Your task to perform on an android device: open sync settings in chrome Image 0: 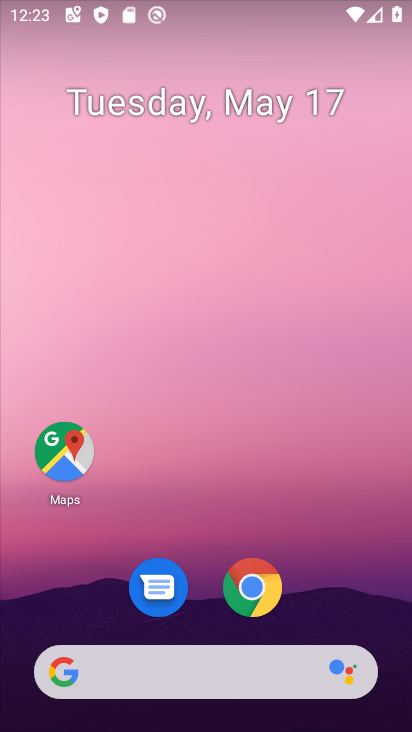
Step 0: click (239, 606)
Your task to perform on an android device: open sync settings in chrome Image 1: 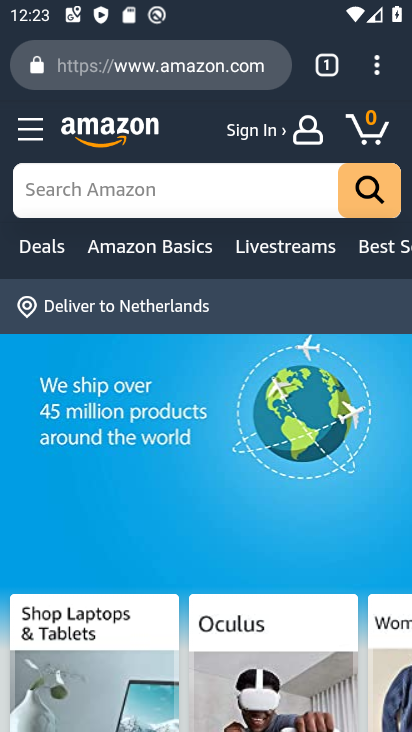
Step 1: click (375, 69)
Your task to perform on an android device: open sync settings in chrome Image 2: 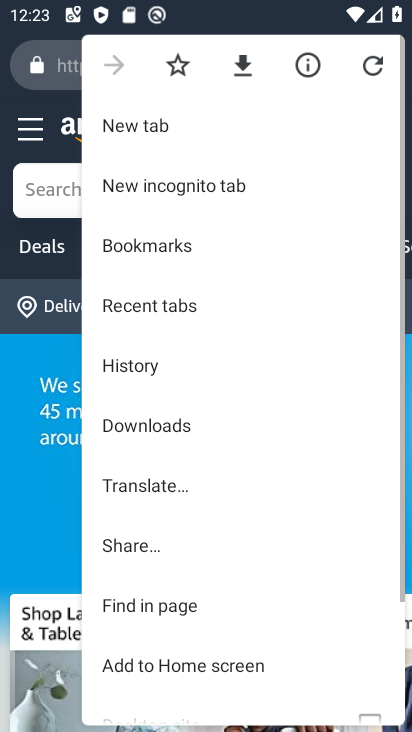
Step 2: drag from (166, 681) to (135, 104)
Your task to perform on an android device: open sync settings in chrome Image 3: 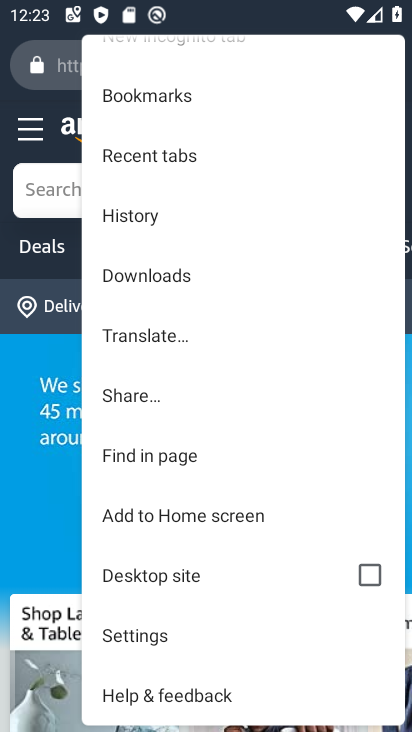
Step 3: click (137, 638)
Your task to perform on an android device: open sync settings in chrome Image 4: 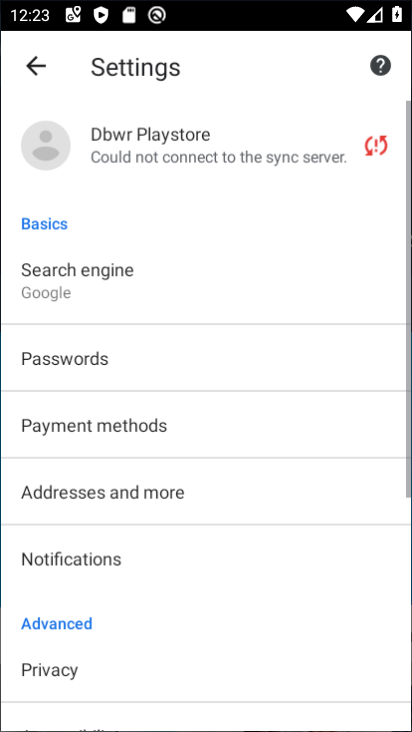
Step 4: drag from (138, 639) to (150, 107)
Your task to perform on an android device: open sync settings in chrome Image 5: 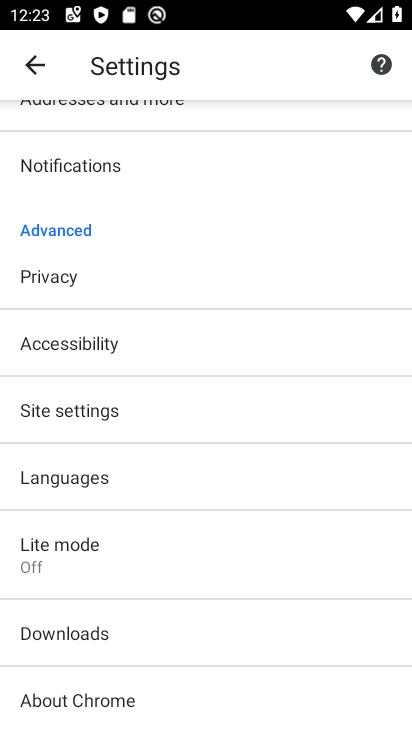
Step 5: drag from (79, 228) to (78, 731)
Your task to perform on an android device: open sync settings in chrome Image 6: 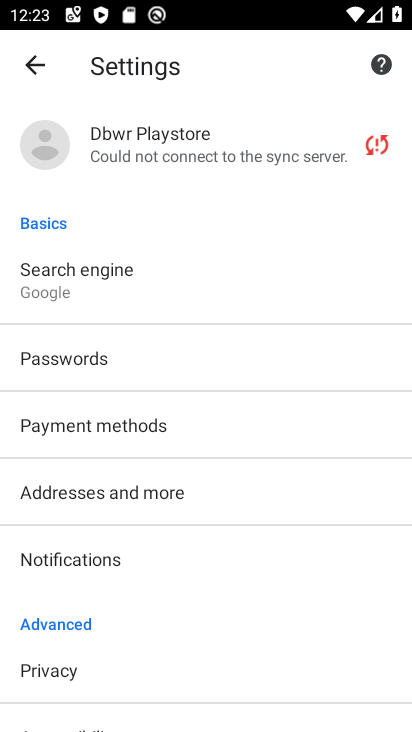
Step 6: click (154, 141)
Your task to perform on an android device: open sync settings in chrome Image 7: 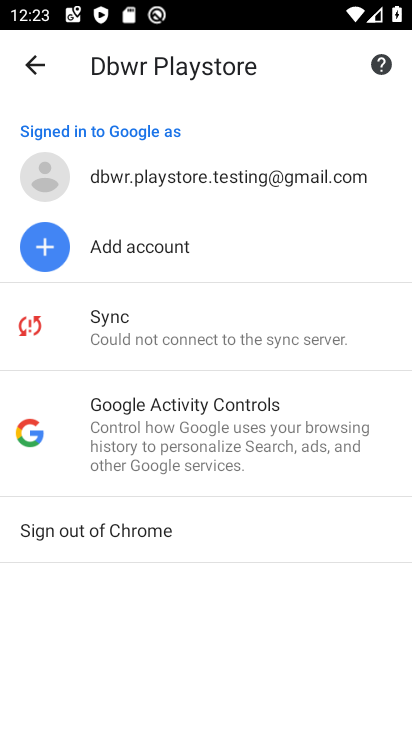
Step 7: click (164, 333)
Your task to perform on an android device: open sync settings in chrome Image 8: 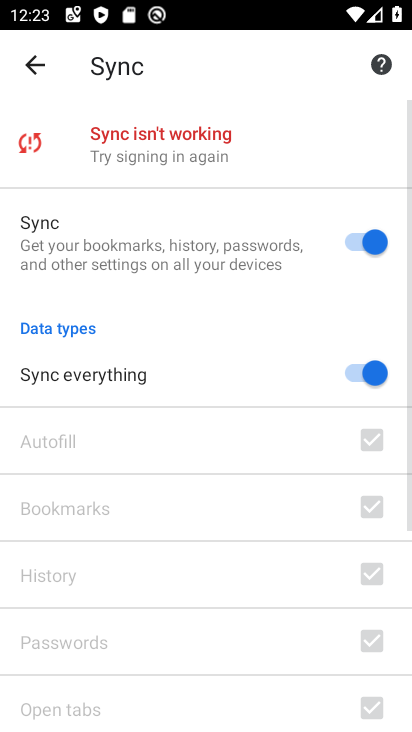
Step 8: task complete